Your task to perform on an android device: Search for flights from Barcelona to Mexico city Image 0: 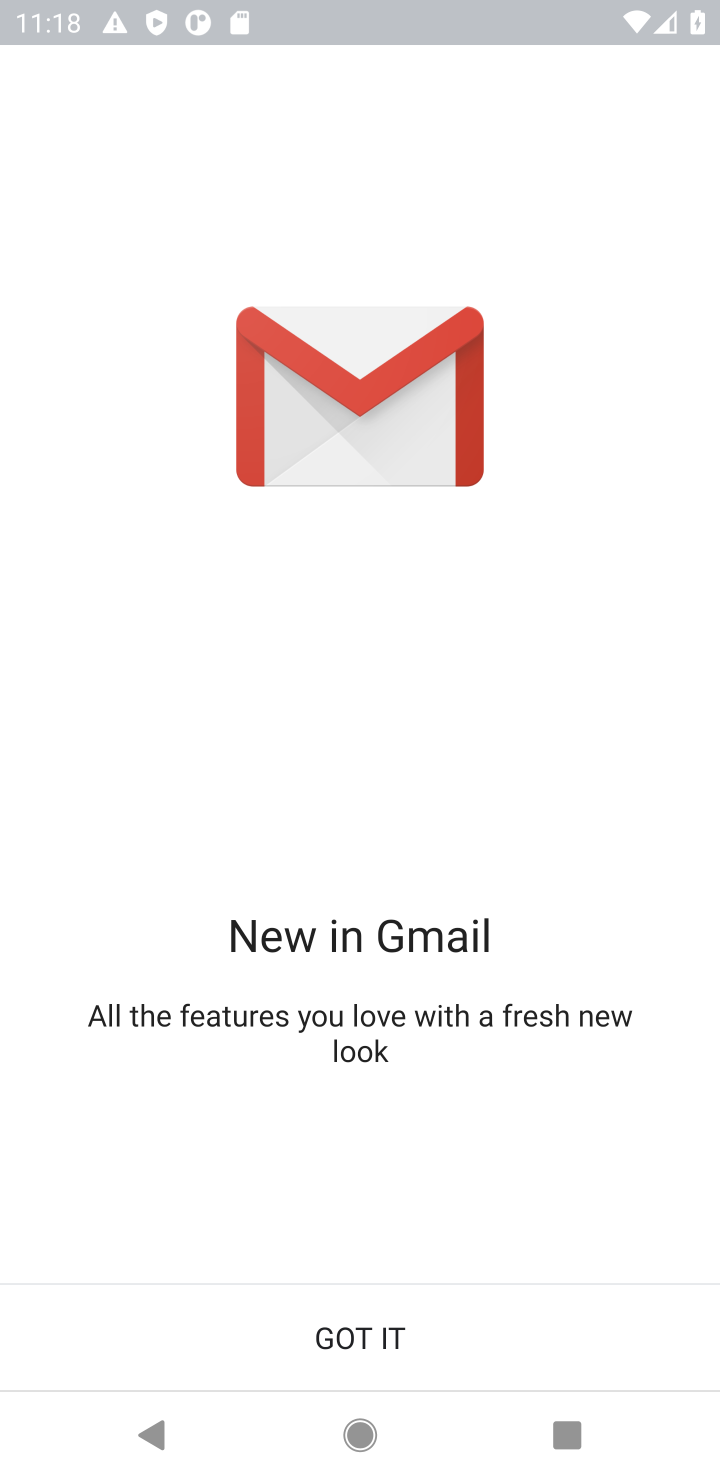
Step 0: press home button
Your task to perform on an android device: Search for flights from Barcelona to Mexico city Image 1: 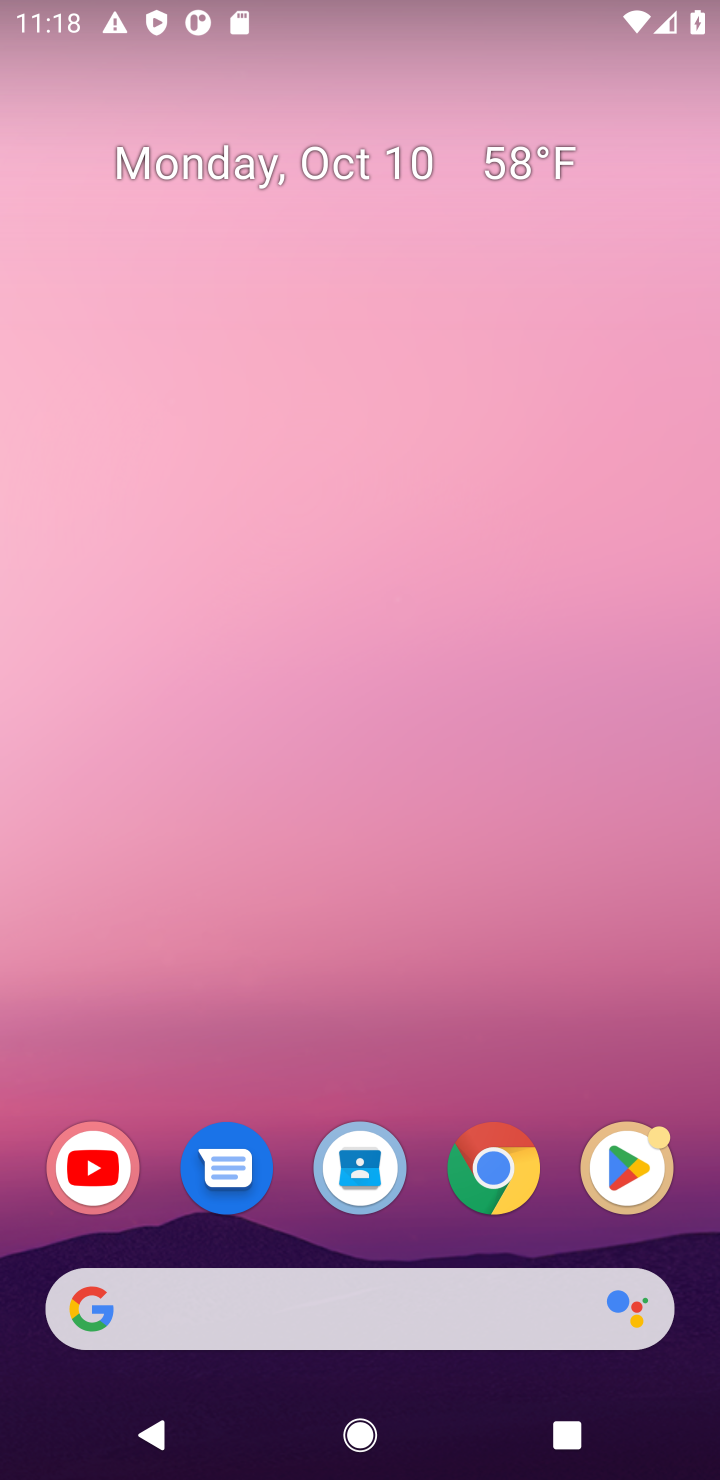
Step 1: click (381, 1324)
Your task to perform on an android device: Search for flights from Barcelona to Mexico city Image 2: 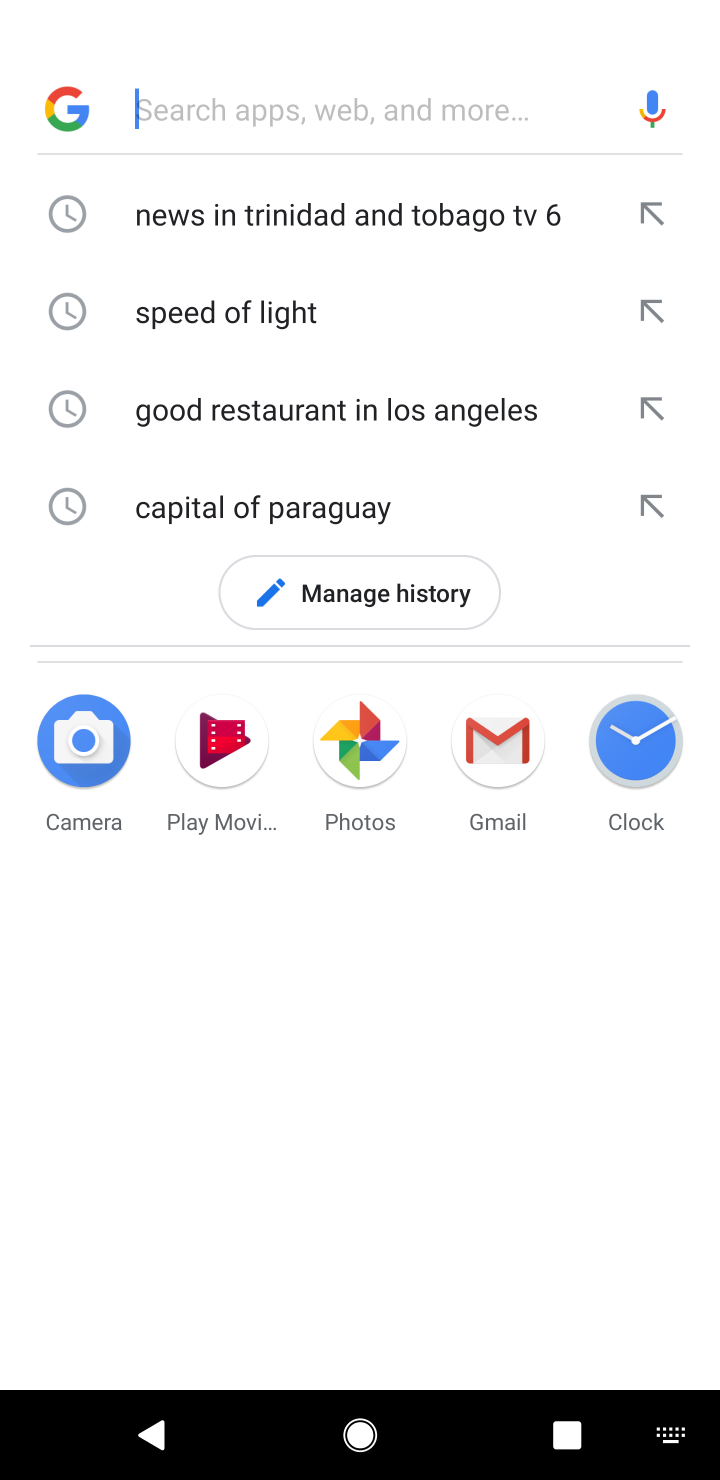
Step 2: type "flights from Barcelona to Mexico"
Your task to perform on an android device: Search for flights from Barcelona to Mexico city Image 3: 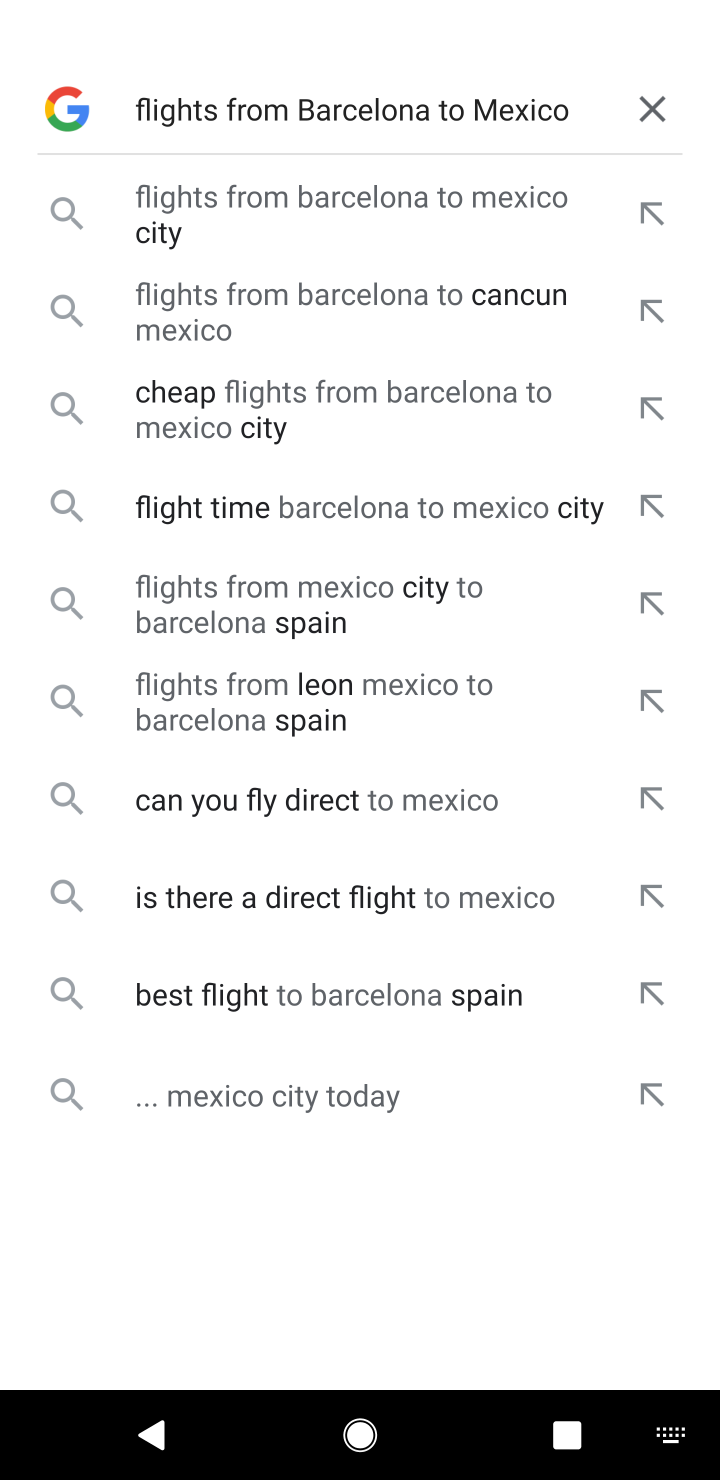
Step 3: type ""
Your task to perform on an android device: Search for flights from Barcelona to Mexico city Image 4: 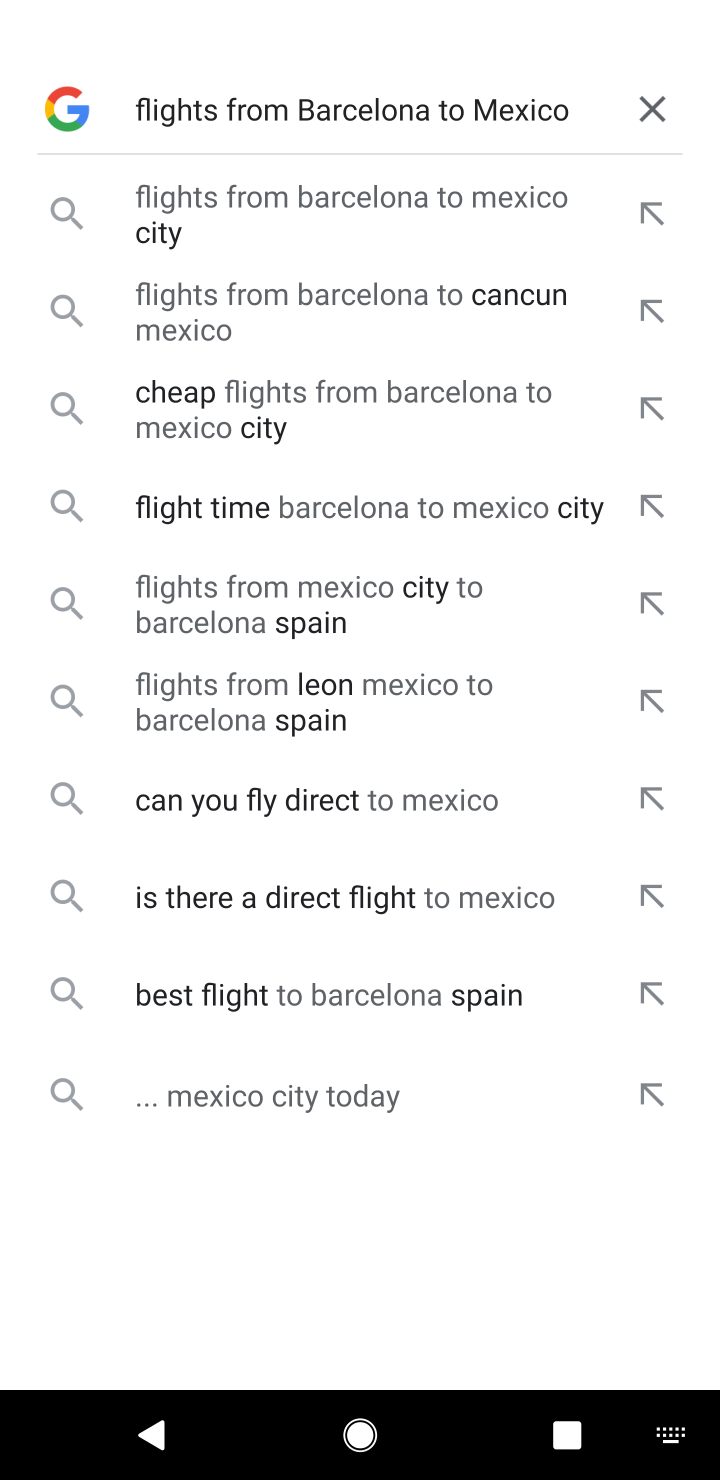
Step 4: click (358, 225)
Your task to perform on an android device: Search for flights from Barcelona to Mexico city Image 5: 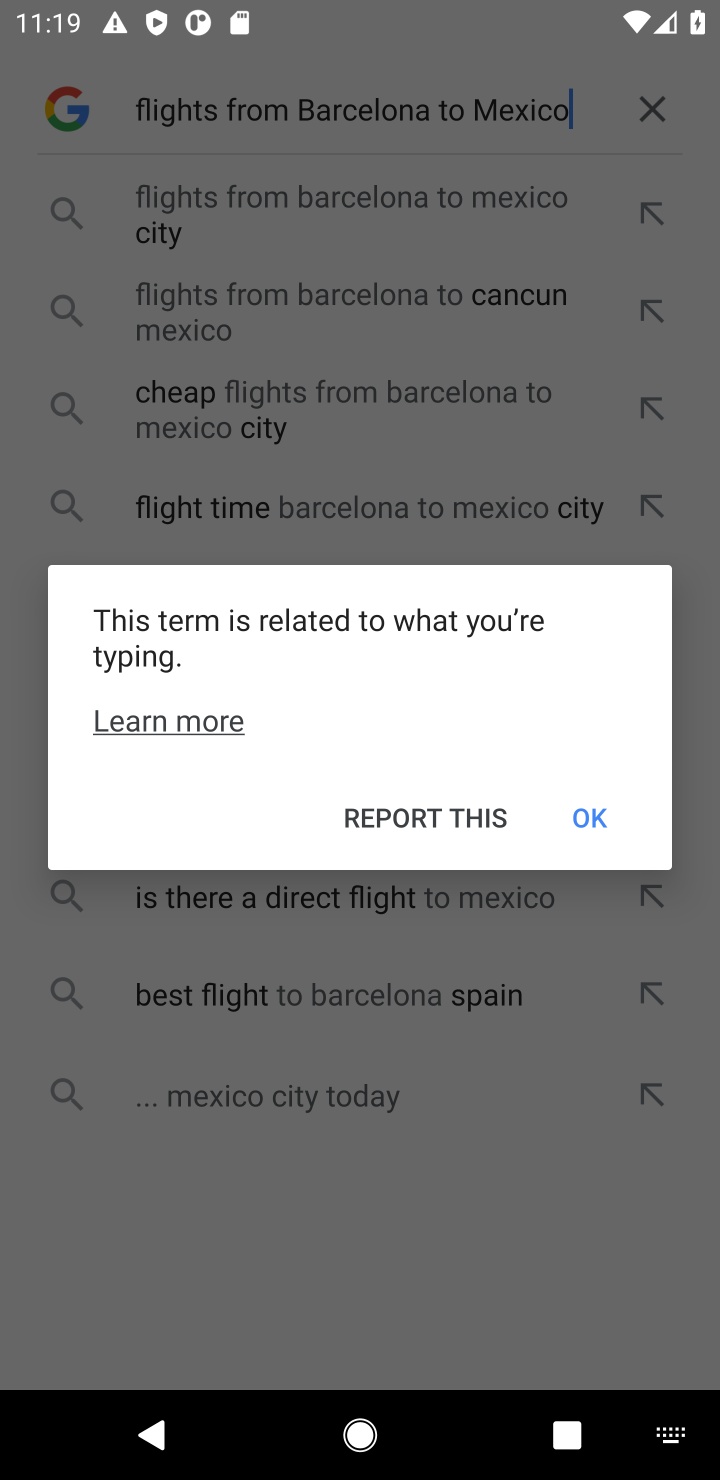
Step 5: click (591, 817)
Your task to perform on an android device: Search for flights from Barcelona to Mexico city Image 6: 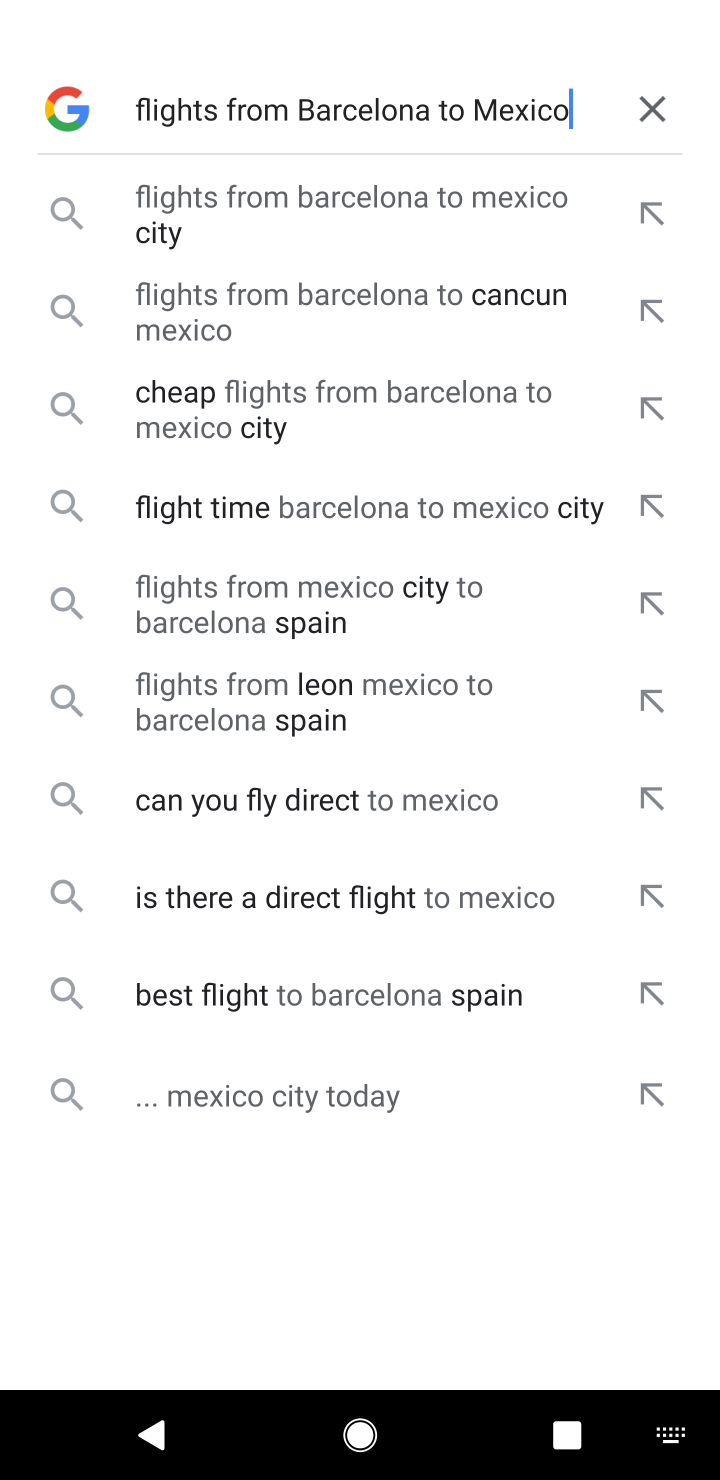
Step 6: click (166, 209)
Your task to perform on an android device: Search for flights from Barcelona to Mexico city Image 7: 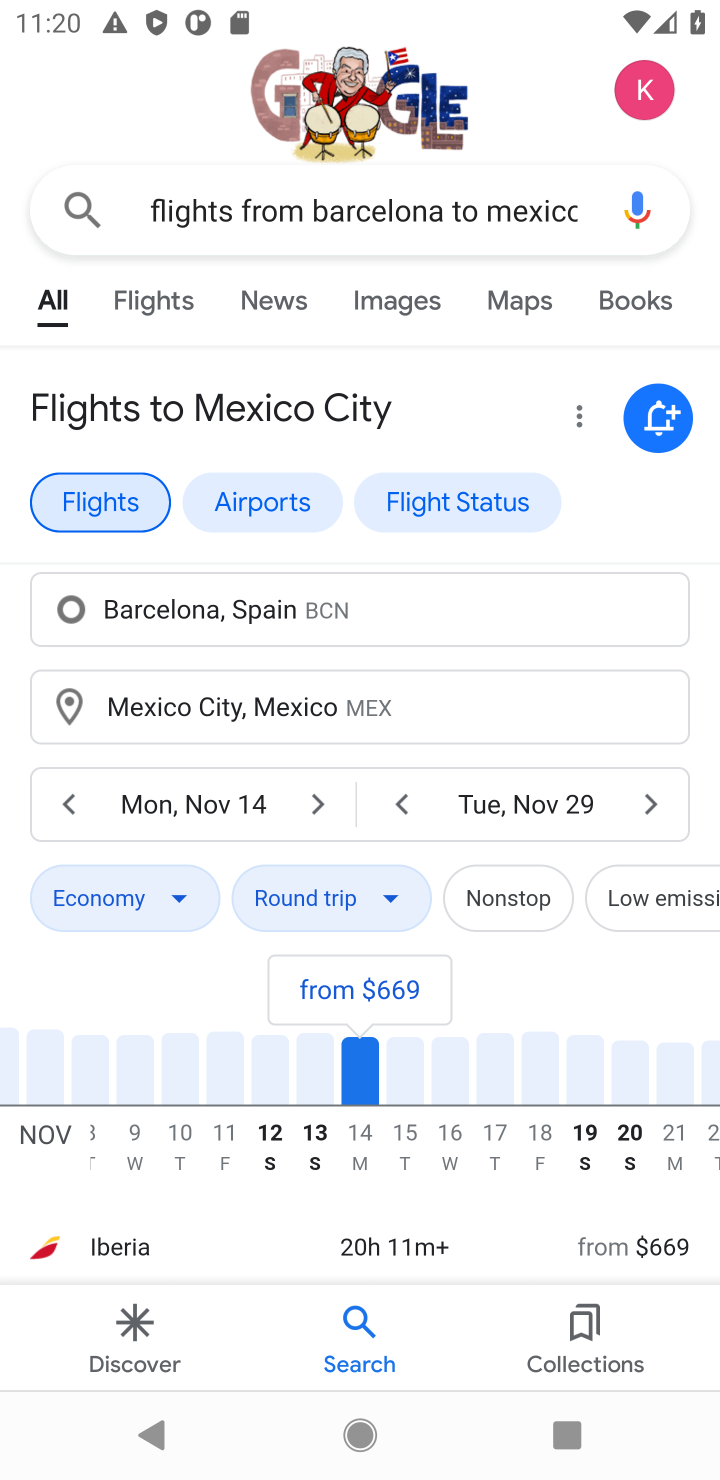
Step 7: task complete